Your task to perform on an android device: change alarm snooze length Image 0: 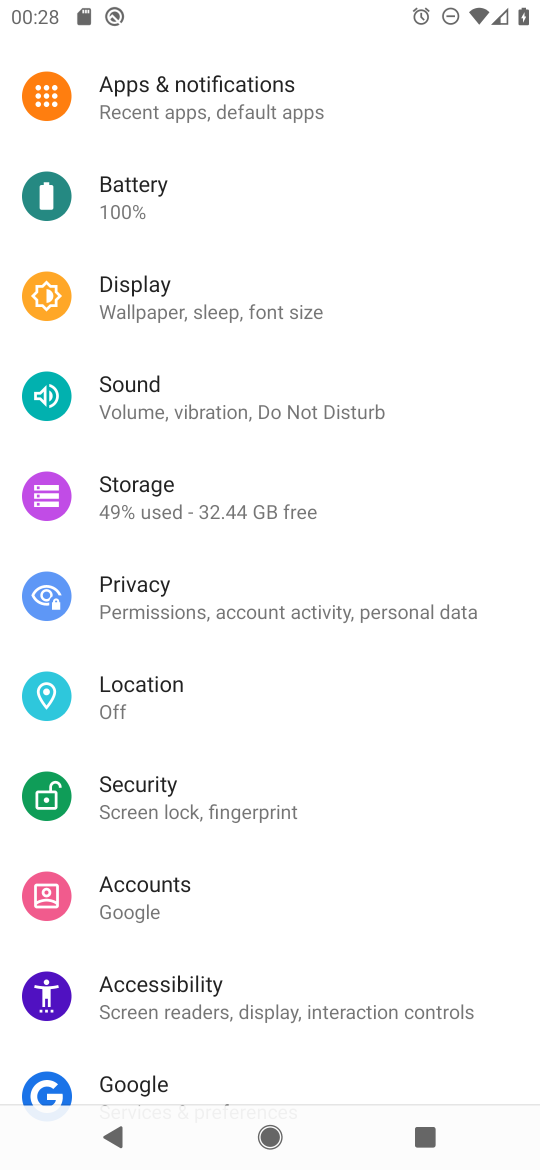
Step 0: press home button
Your task to perform on an android device: change alarm snooze length Image 1: 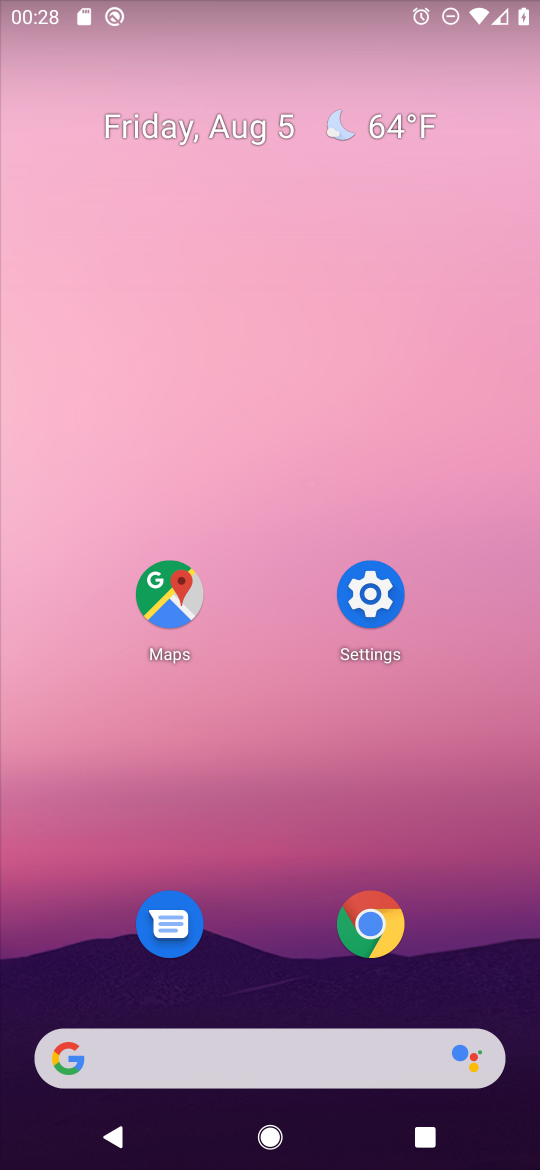
Step 1: drag from (240, 1066) to (332, 300)
Your task to perform on an android device: change alarm snooze length Image 2: 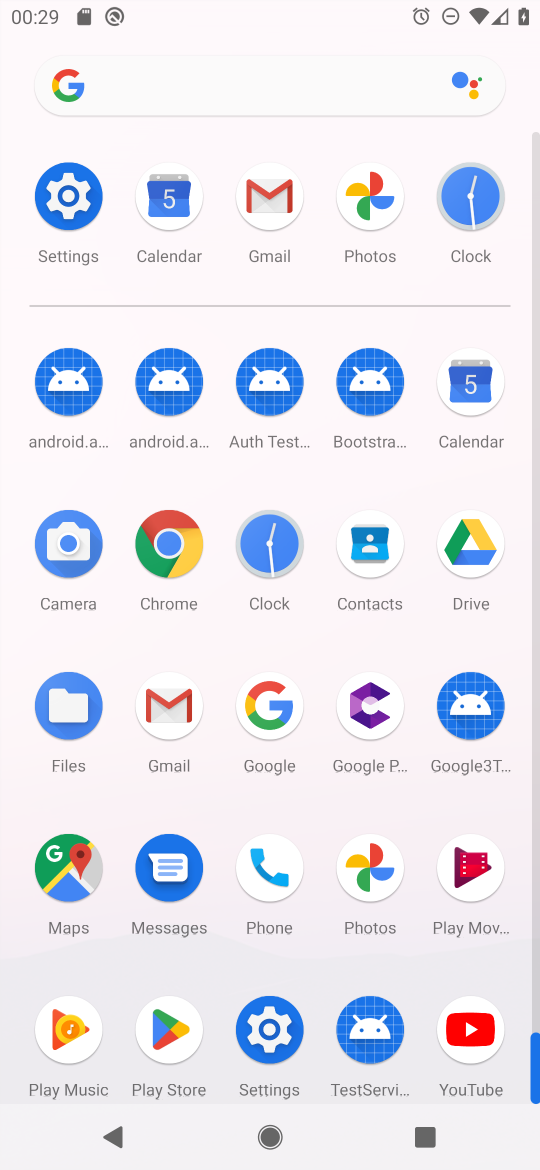
Step 2: click (271, 550)
Your task to perform on an android device: change alarm snooze length Image 3: 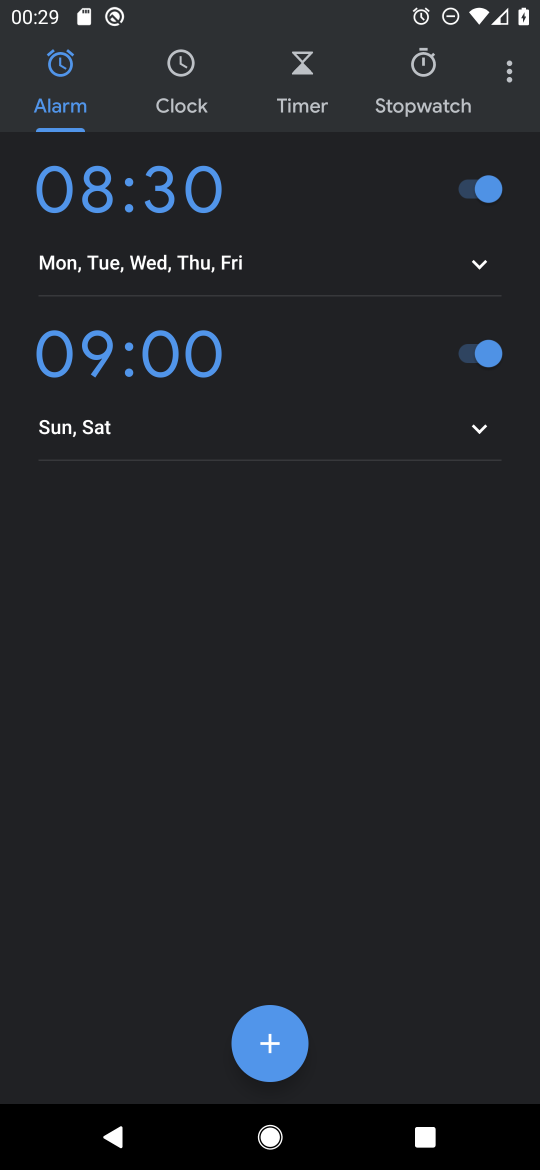
Step 3: click (509, 73)
Your task to perform on an android device: change alarm snooze length Image 4: 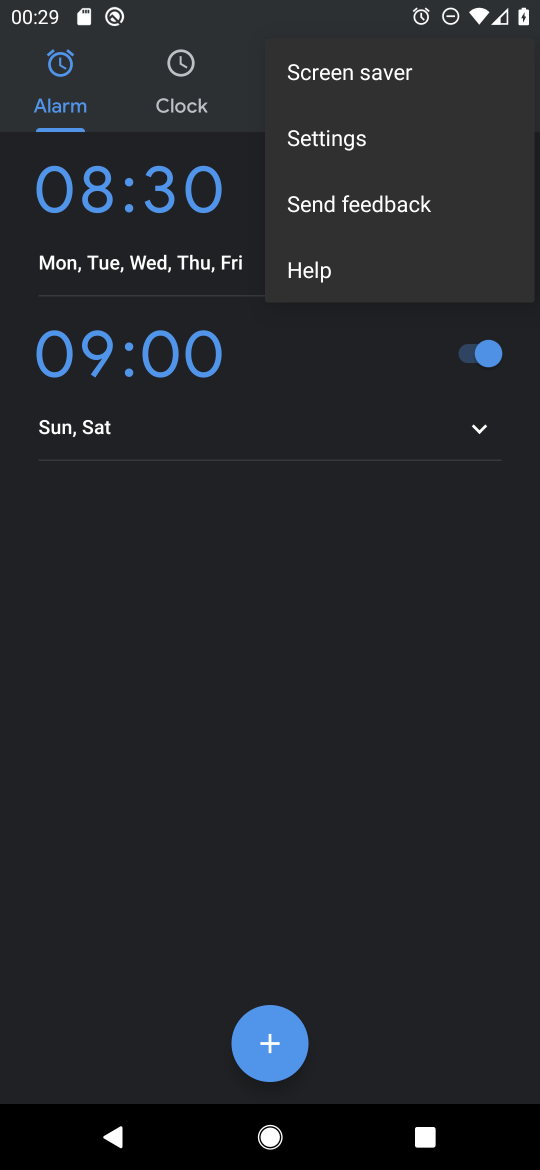
Step 4: click (349, 141)
Your task to perform on an android device: change alarm snooze length Image 5: 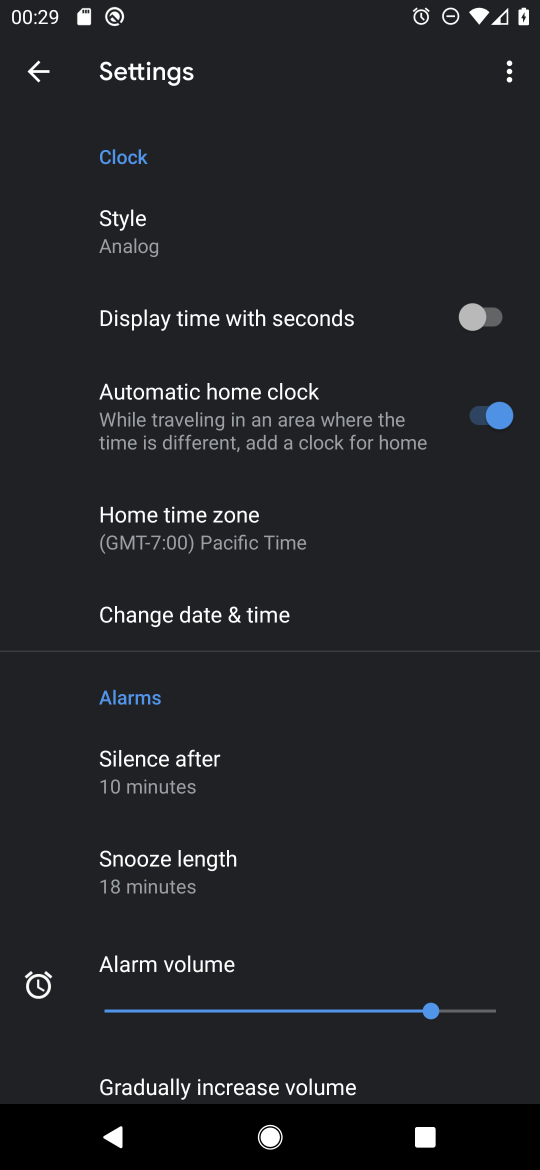
Step 5: click (154, 887)
Your task to perform on an android device: change alarm snooze length Image 6: 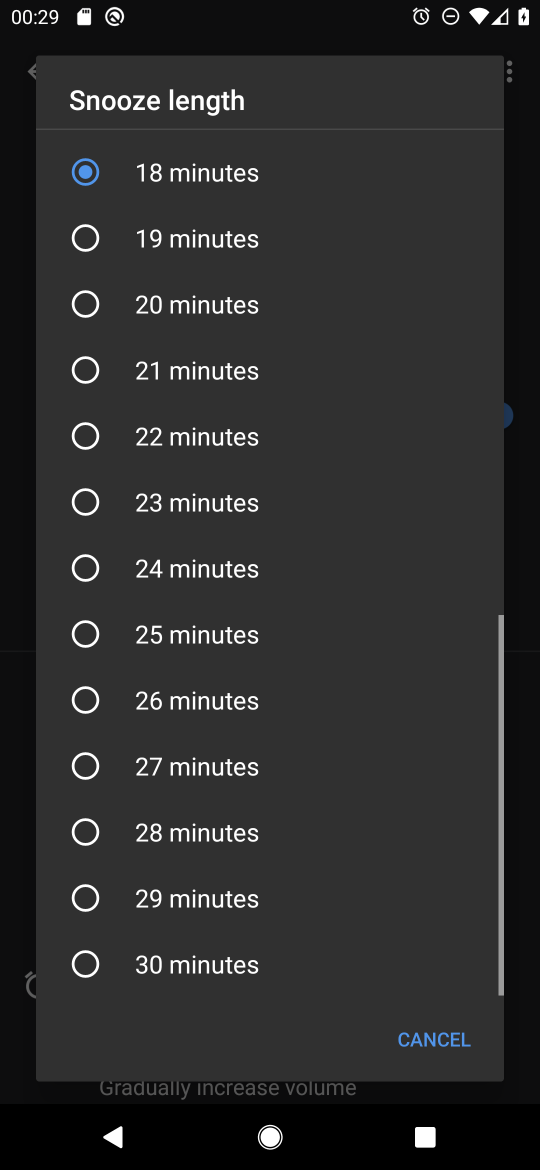
Step 6: drag from (286, 233) to (225, 770)
Your task to perform on an android device: change alarm snooze length Image 7: 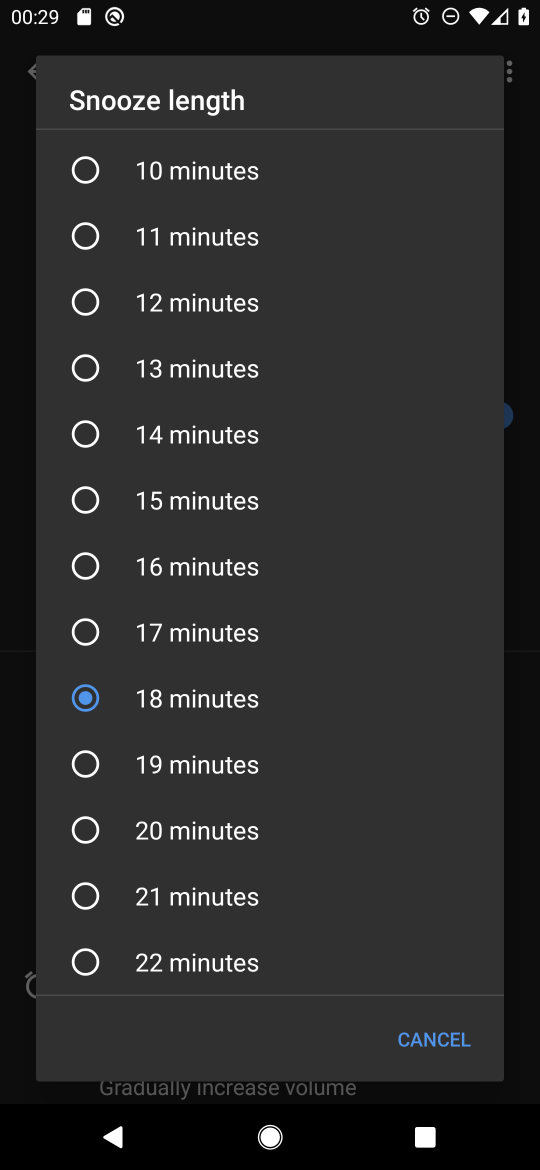
Step 7: click (88, 502)
Your task to perform on an android device: change alarm snooze length Image 8: 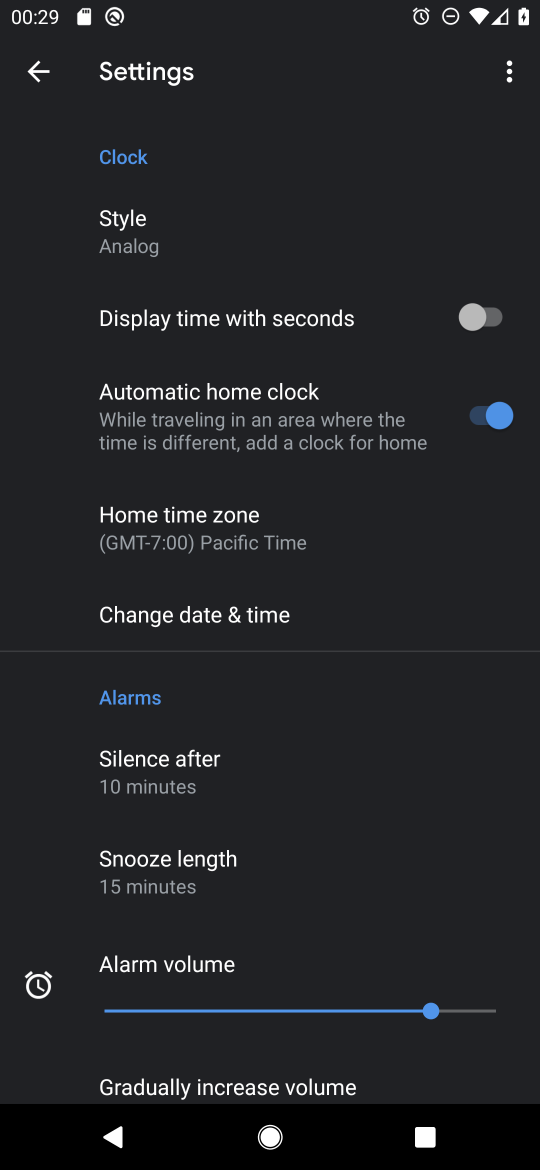
Step 8: task complete